Your task to perform on an android device: turn notification dots on Image 0: 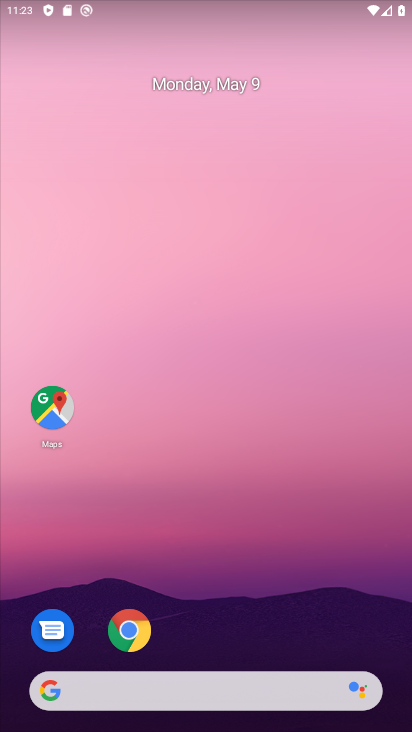
Step 0: press home button
Your task to perform on an android device: turn notification dots on Image 1: 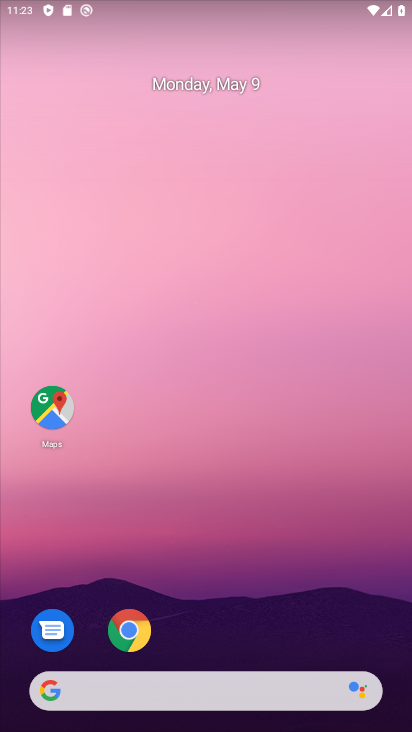
Step 1: drag from (156, 704) to (312, 174)
Your task to perform on an android device: turn notification dots on Image 2: 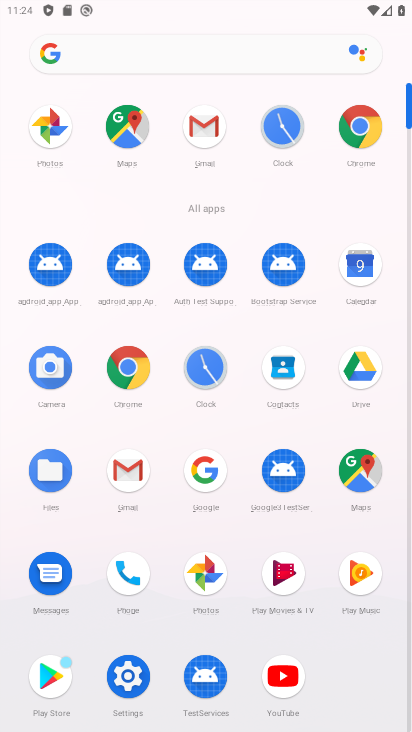
Step 2: click (133, 674)
Your task to perform on an android device: turn notification dots on Image 3: 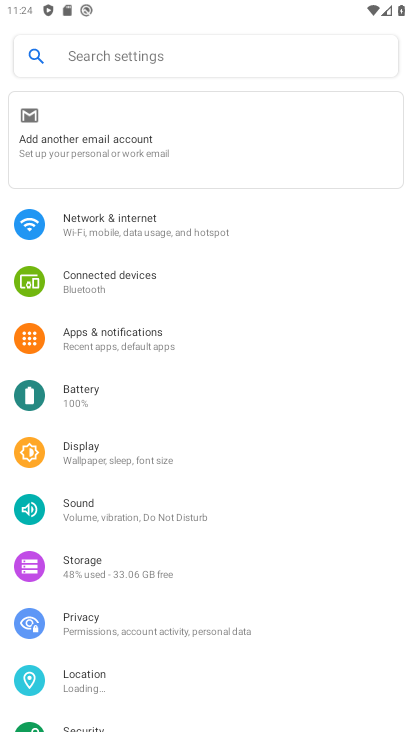
Step 3: click (114, 336)
Your task to perform on an android device: turn notification dots on Image 4: 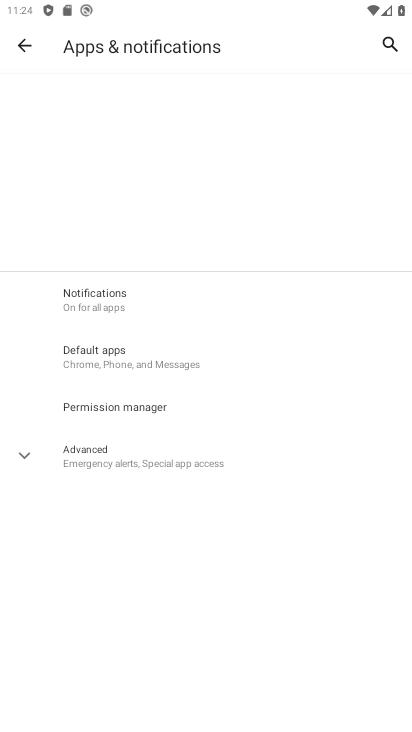
Step 4: click (133, 334)
Your task to perform on an android device: turn notification dots on Image 5: 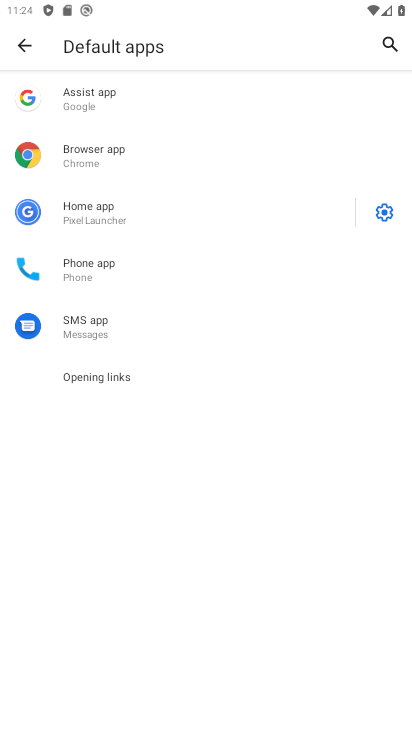
Step 5: click (30, 34)
Your task to perform on an android device: turn notification dots on Image 6: 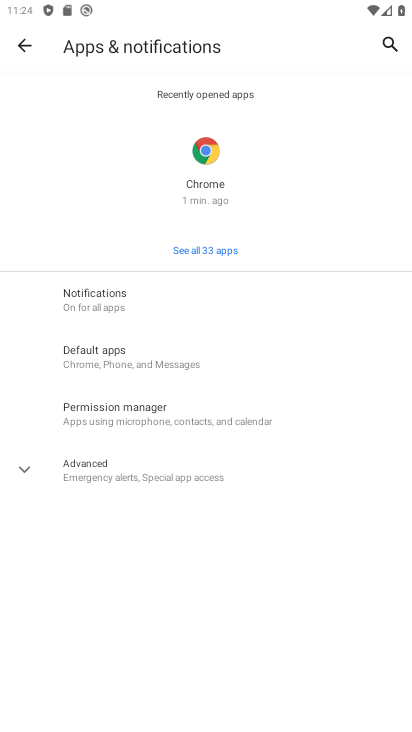
Step 6: click (112, 301)
Your task to perform on an android device: turn notification dots on Image 7: 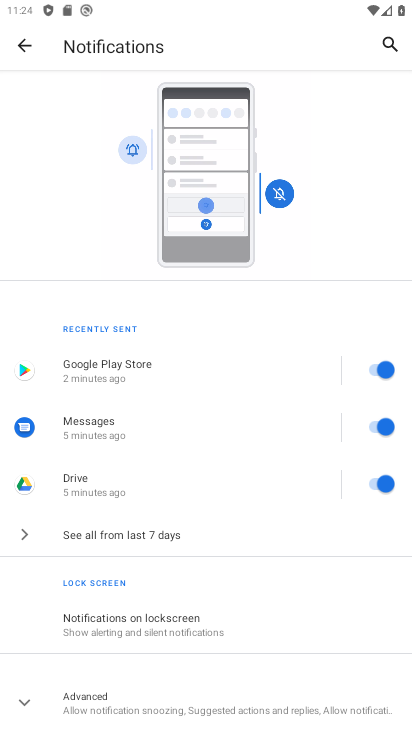
Step 7: drag from (170, 605) to (347, 242)
Your task to perform on an android device: turn notification dots on Image 8: 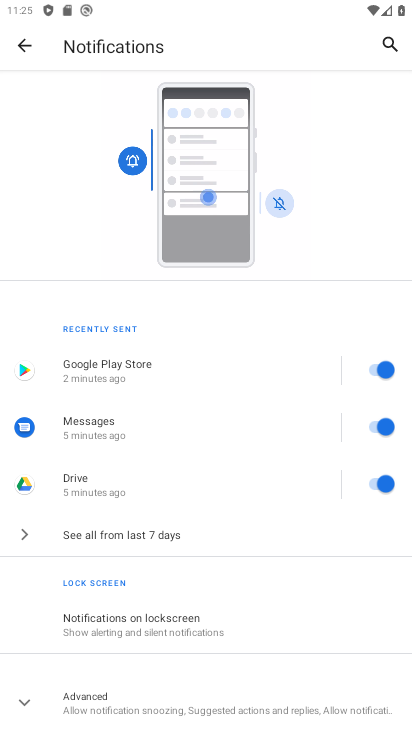
Step 8: click (98, 702)
Your task to perform on an android device: turn notification dots on Image 9: 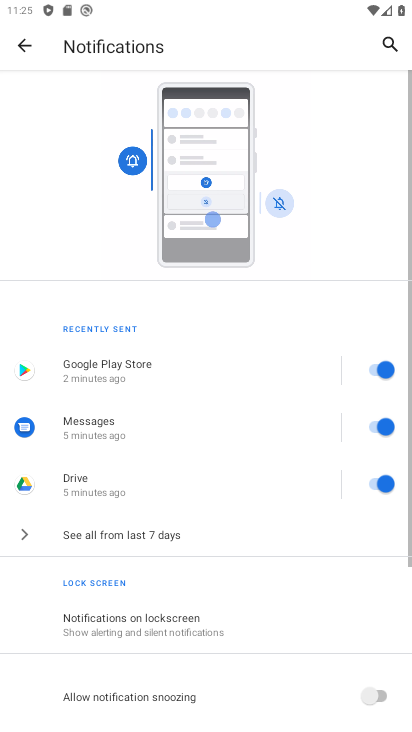
Step 9: task complete